Your task to perform on an android device: Go to sound settings Image 0: 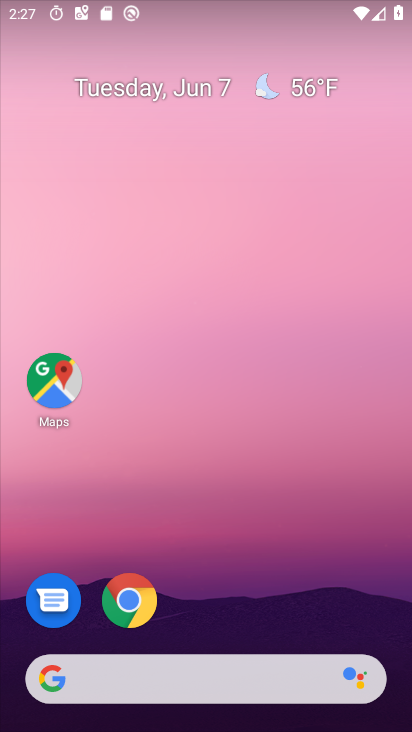
Step 0: drag from (216, 642) to (267, 228)
Your task to perform on an android device: Go to sound settings Image 1: 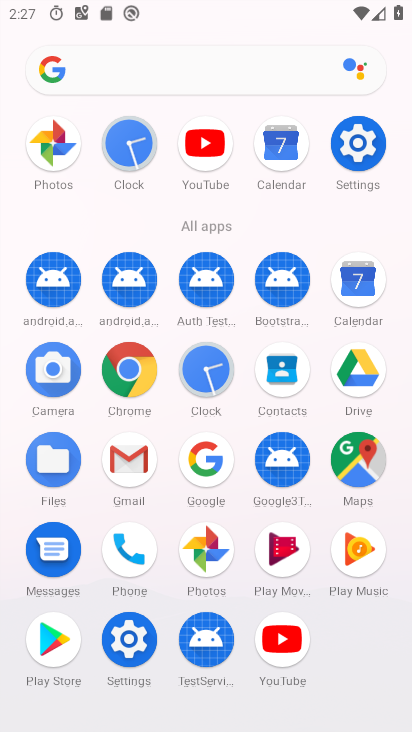
Step 1: click (363, 152)
Your task to perform on an android device: Go to sound settings Image 2: 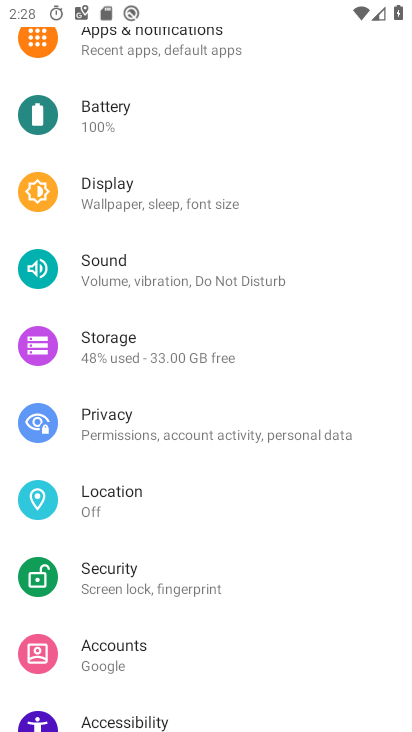
Step 2: click (158, 284)
Your task to perform on an android device: Go to sound settings Image 3: 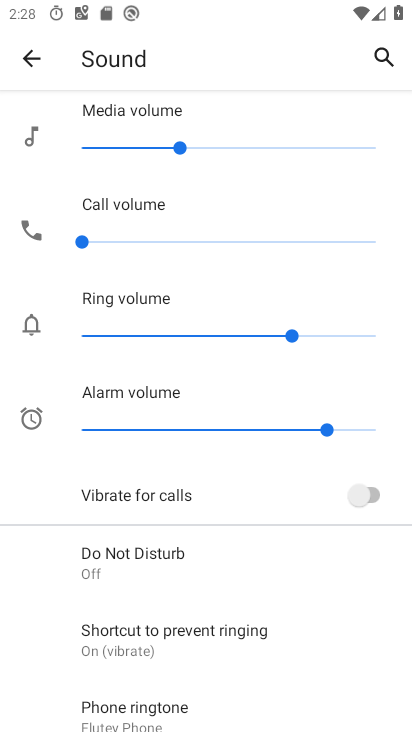
Step 3: task complete